Your task to perform on an android device: turn vacation reply on in the gmail app Image 0: 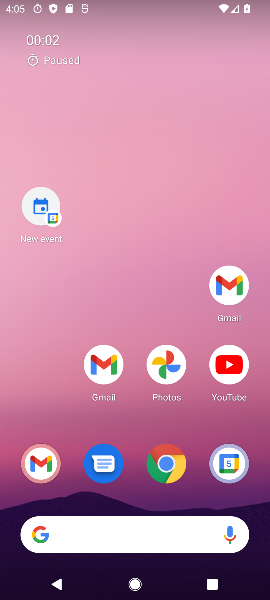
Step 0: drag from (167, 536) to (123, 161)
Your task to perform on an android device: turn vacation reply on in the gmail app Image 1: 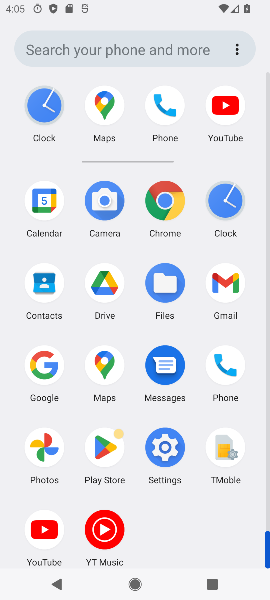
Step 1: click (227, 286)
Your task to perform on an android device: turn vacation reply on in the gmail app Image 2: 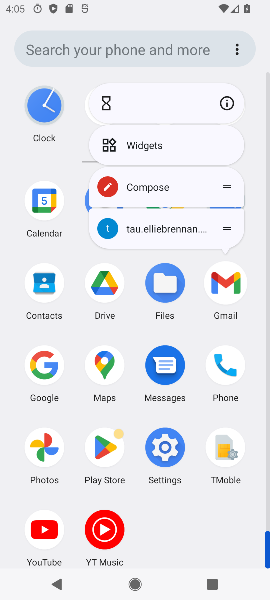
Step 2: click (227, 286)
Your task to perform on an android device: turn vacation reply on in the gmail app Image 3: 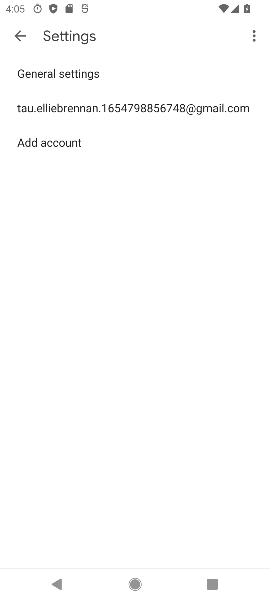
Step 3: click (137, 116)
Your task to perform on an android device: turn vacation reply on in the gmail app Image 4: 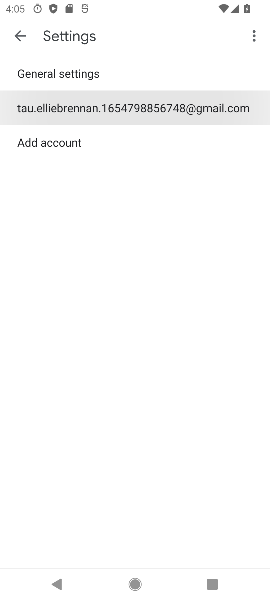
Step 4: click (138, 116)
Your task to perform on an android device: turn vacation reply on in the gmail app Image 5: 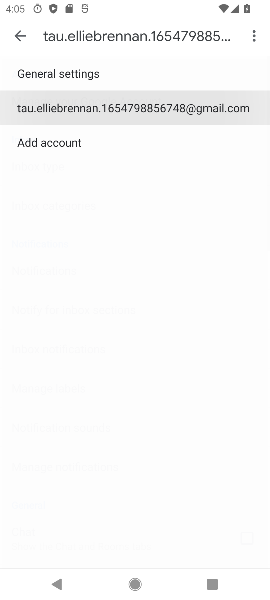
Step 5: click (139, 117)
Your task to perform on an android device: turn vacation reply on in the gmail app Image 6: 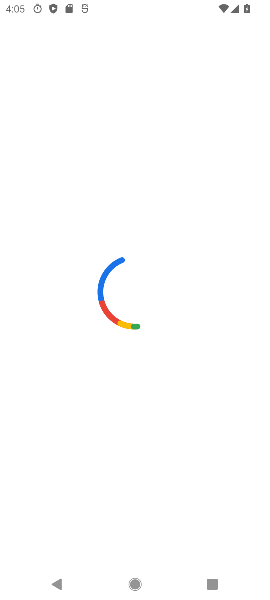
Step 6: click (86, 154)
Your task to perform on an android device: turn vacation reply on in the gmail app Image 7: 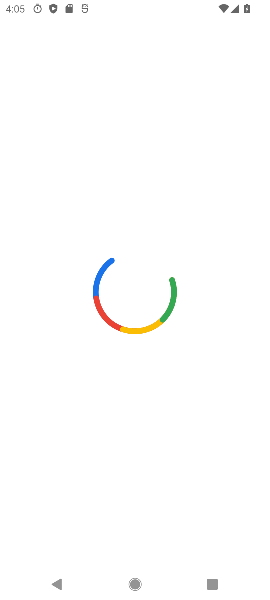
Step 7: click (101, 198)
Your task to perform on an android device: turn vacation reply on in the gmail app Image 8: 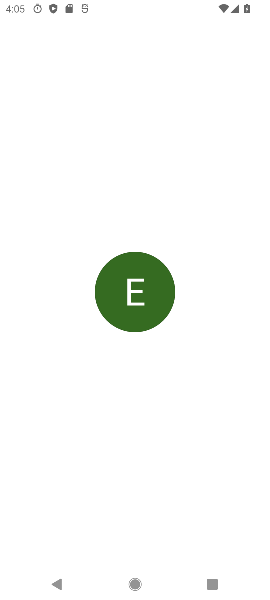
Step 8: click (101, 198)
Your task to perform on an android device: turn vacation reply on in the gmail app Image 9: 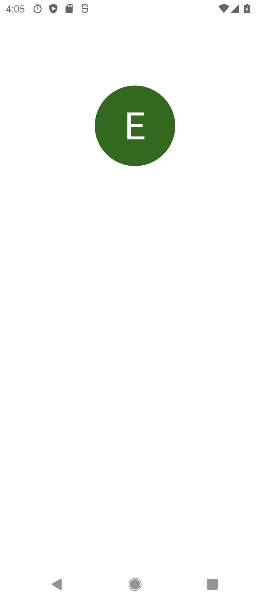
Step 9: click (101, 195)
Your task to perform on an android device: turn vacation reply on in the gmail app Image 10: 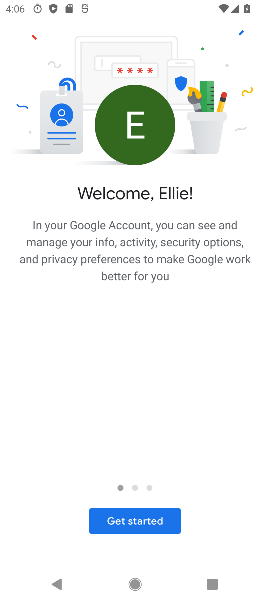
Step 10: press back button
Your task to perform on an android device: turn vacation reply on in the gmail app Image 11: 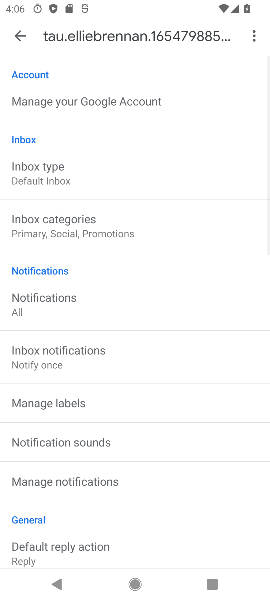
Step 11: drag from (63, 524) to (34, 192)
Your task to perform on an android device: turn vacation reply on in the gmail app Image 12: 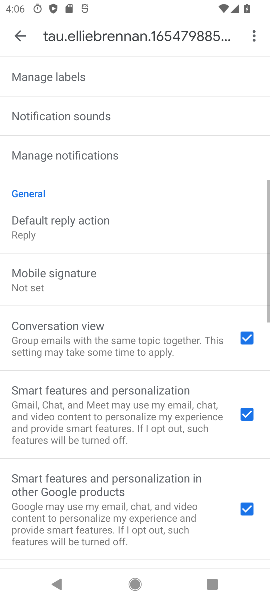
Step 12: drag from (91, 404) to (88, 241)
Your task to perform on an android device: turn vacation reply on in the gmail app Image 13: 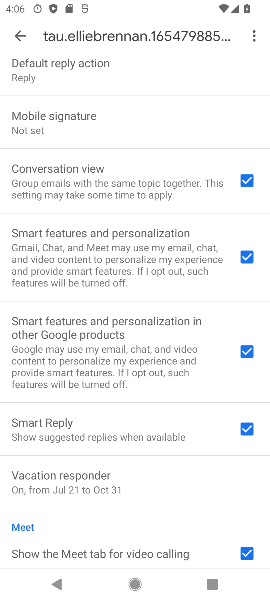
Step 13: click (87, 479)
Your task to perform on an android device: turn vacation reply on in the gmail app Image 14: 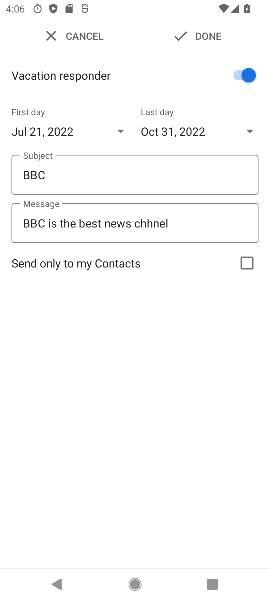
Step 14: task complete